Your task to perform on an android device: Open the calendar and show me this week's events Image 0: 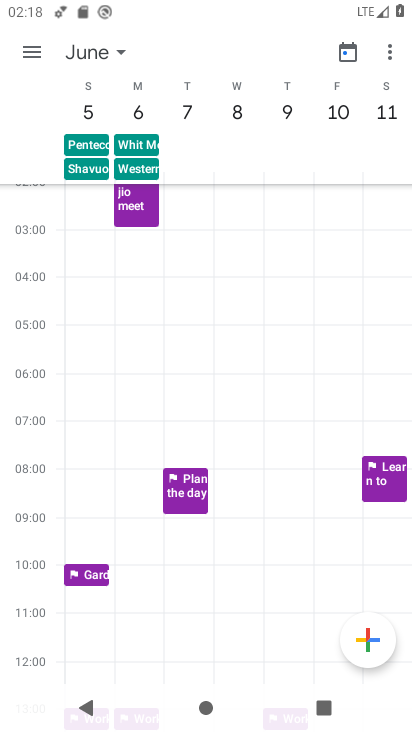
Step 0: press home button
Your task to perform on an android device: Open the calendar and show me this week's events Image 1: 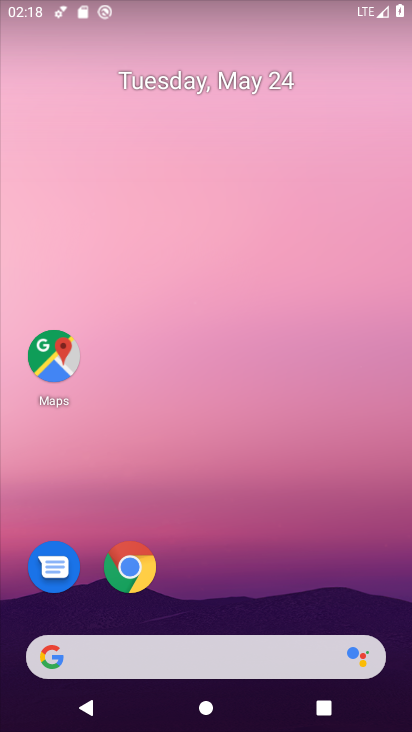
Step 1: drag from (193, 603) to (256, 150)
Your task to perform on an android device: Open the calendar and show me this week's events Image 2: 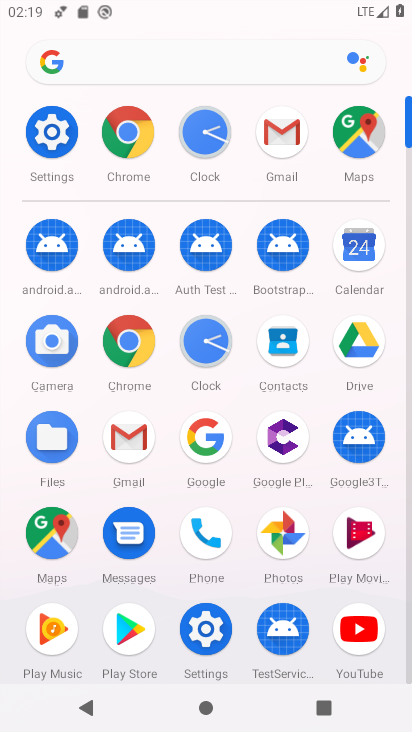
Step 2: click (374, 254)
Your task to perform on an android device: Open the calendar and show me this week's events Image 3: 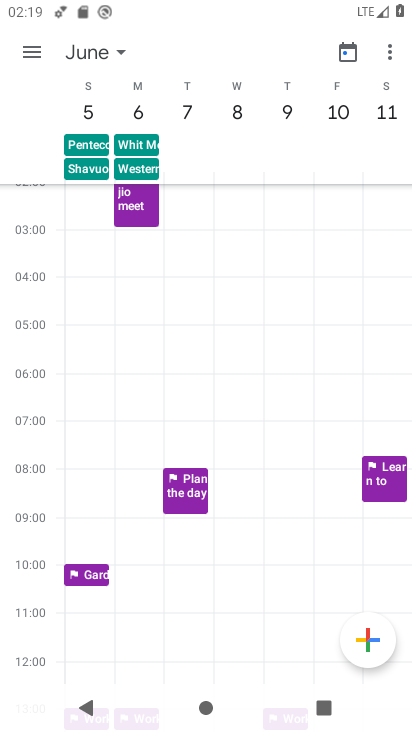
Step 3: task complete